Your task to perform on an android device: Open Amazon Image 0: 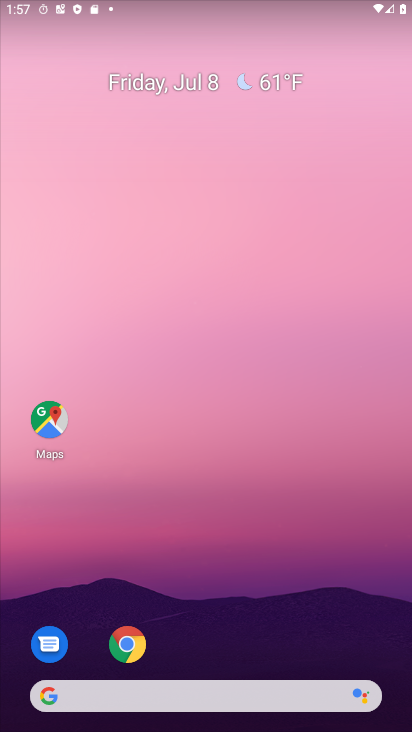
Step 0: click (123, 653)
Your task to perform on an android device: Open Amazon Image 1: 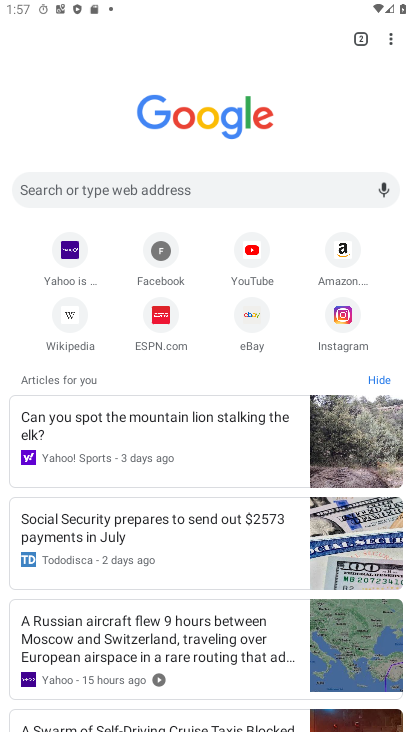
Step 1: click (355, 251)
Your task to perform on an android device: Open Amazon Image 2: 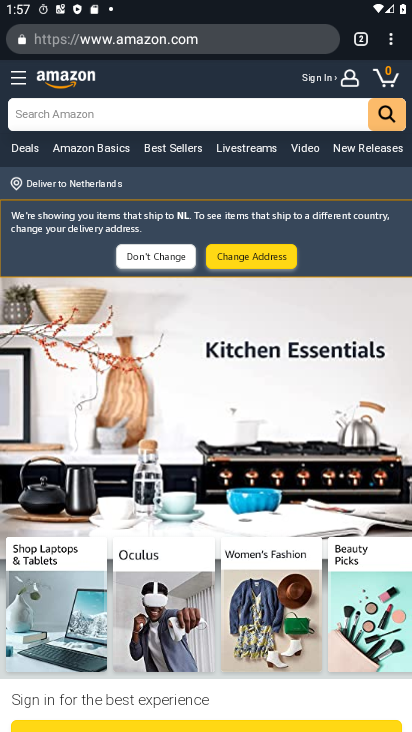
Step 2: task complete